Your task to perform on an android device: change alarm snooze length Image 0: 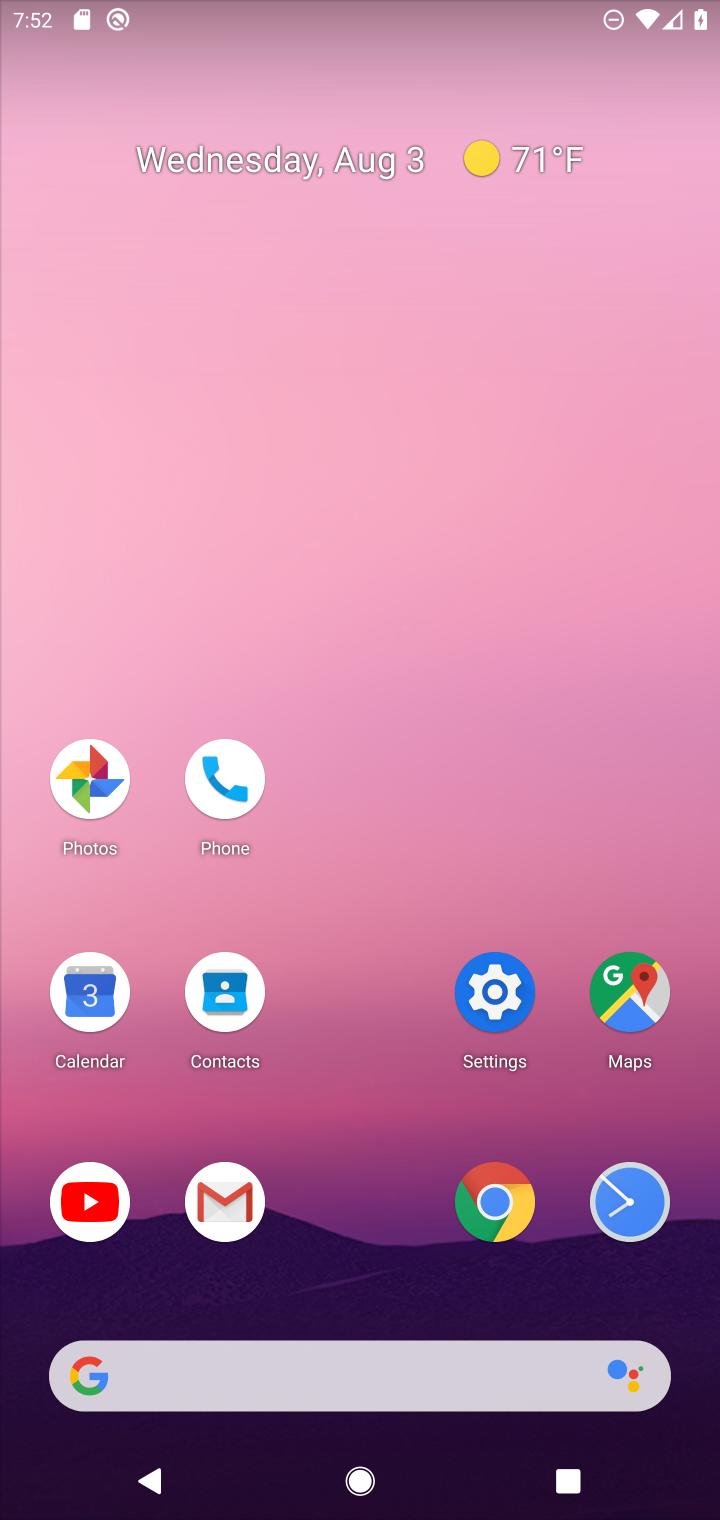
Step 0: click (628, 1210)
Your task to perform on an android device: change alarm snooze length Image 1: 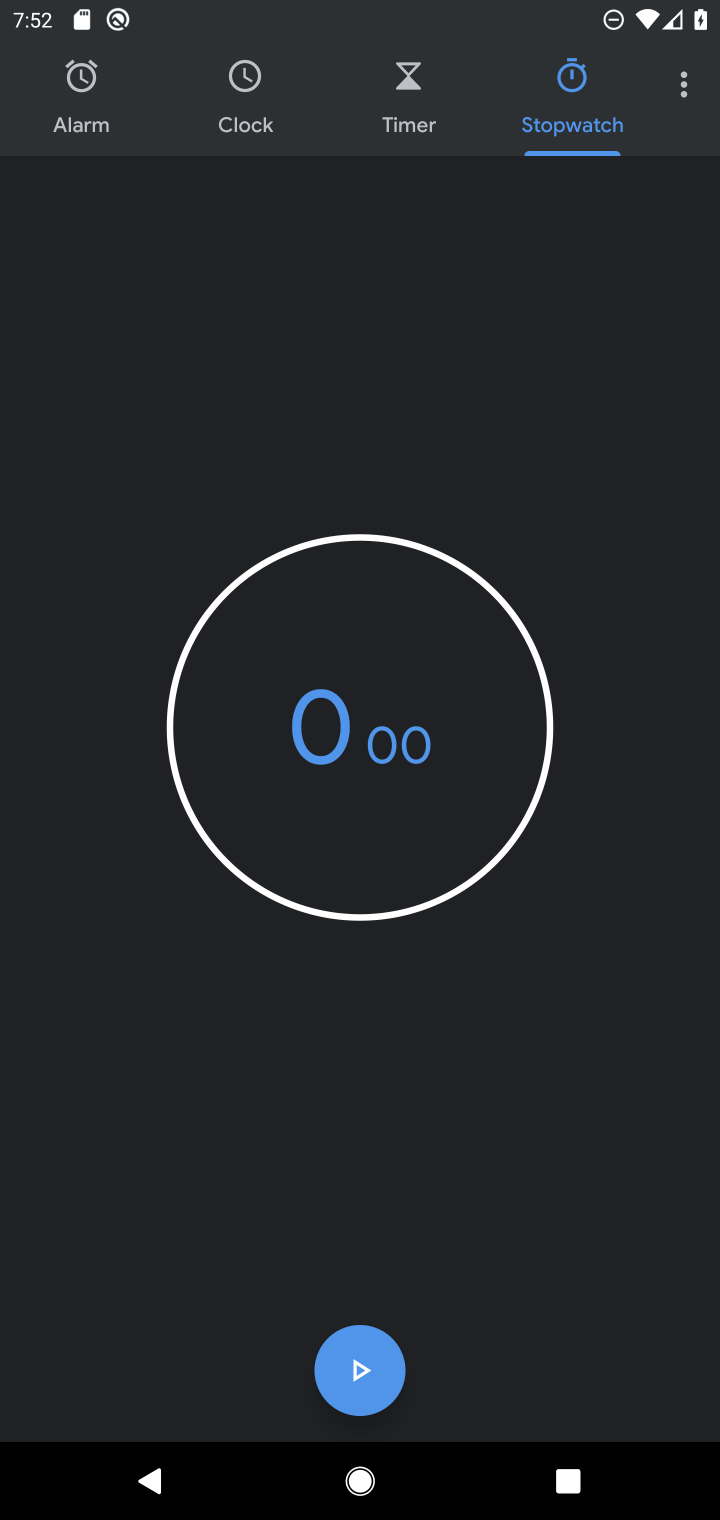
Step 1: click (681, 87)
Your task to perform on an android device: change alarm snooze length Image 2: 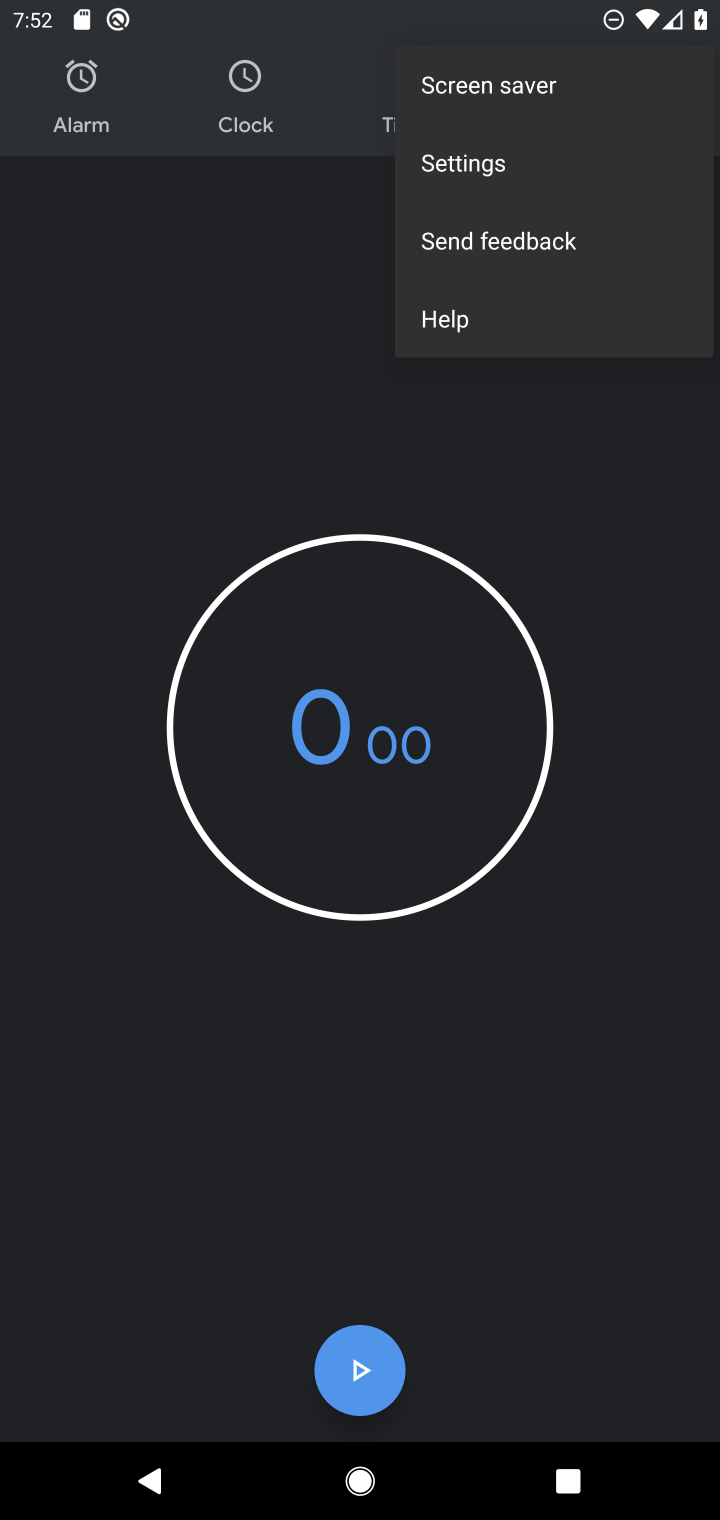
Step 2: click (470, 169)
Your task to perform on an android device: change alarm snooze length Image 3: 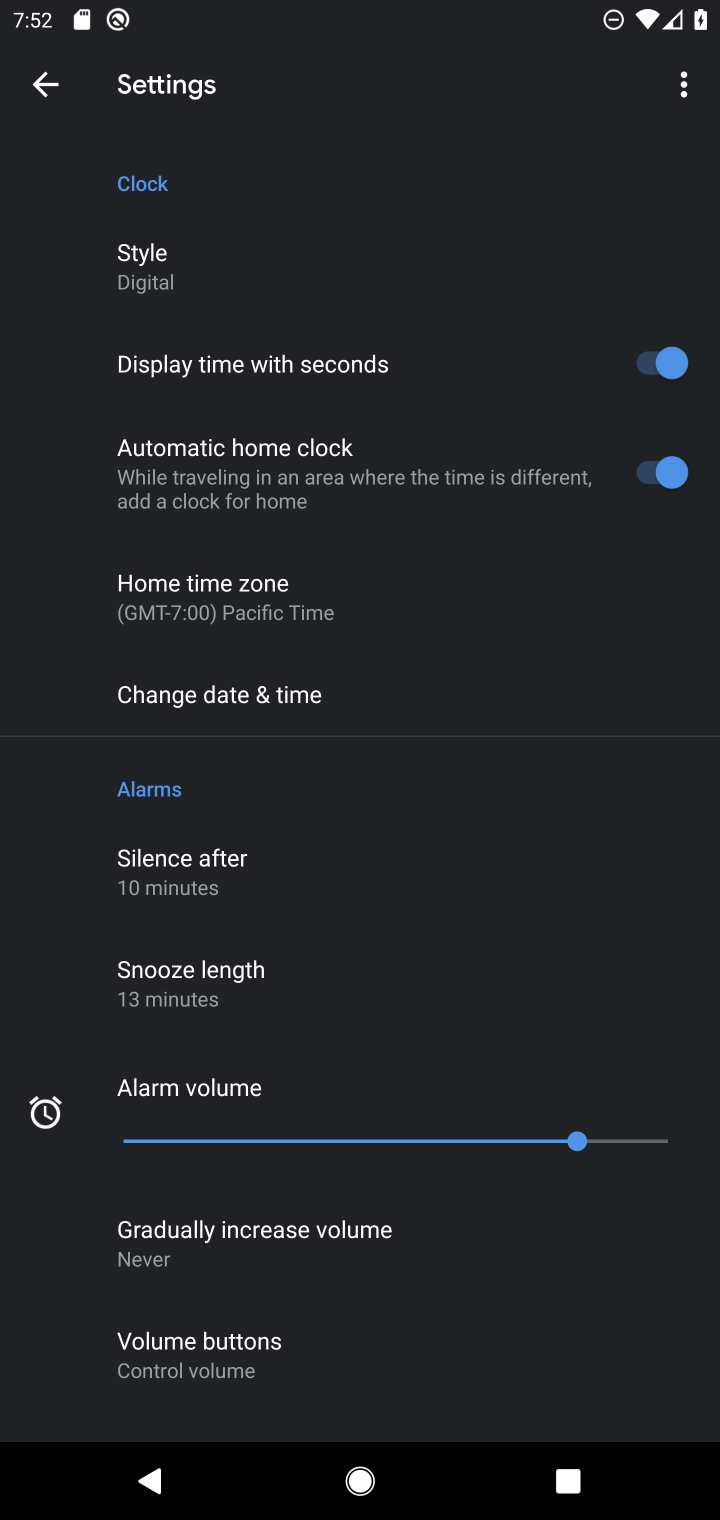
Step 3: click (192, 976)
Your task to perform on an android device: change alarm snooze length Image 4: 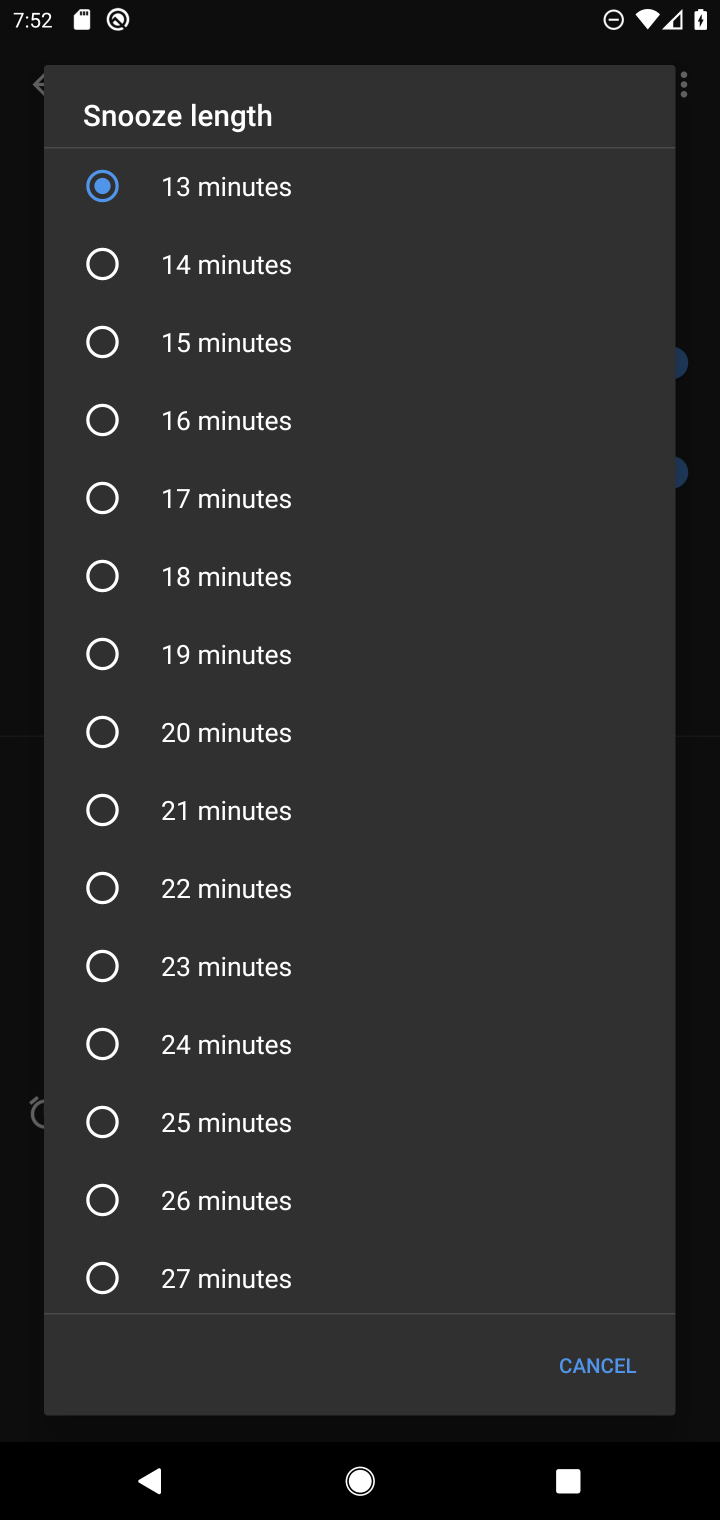
Step 4: click (116, 257)
Your task to perform on an android device: change alarm snooze length Image 5: 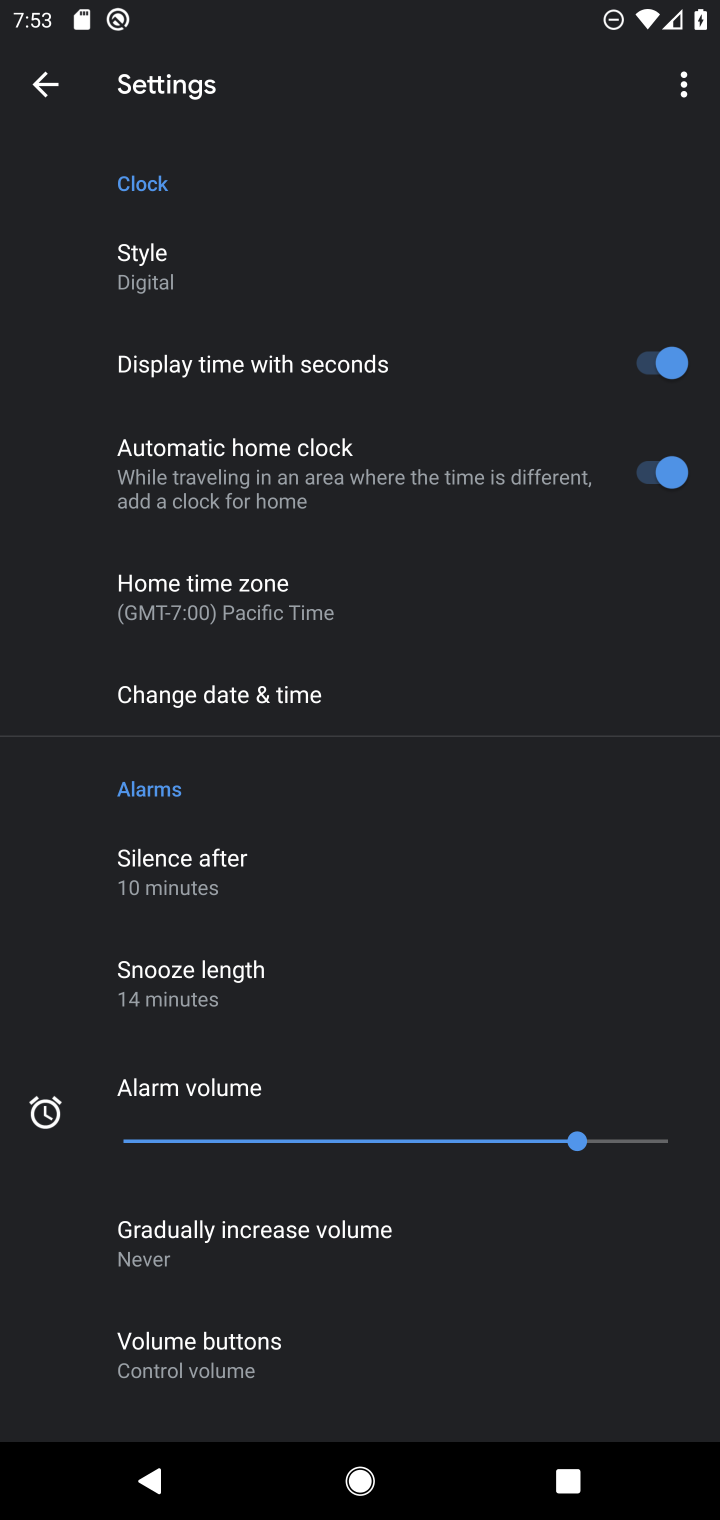
Step 5: task complete